Your task to perform on an android device: change notification settings in the gmail app Image 0: 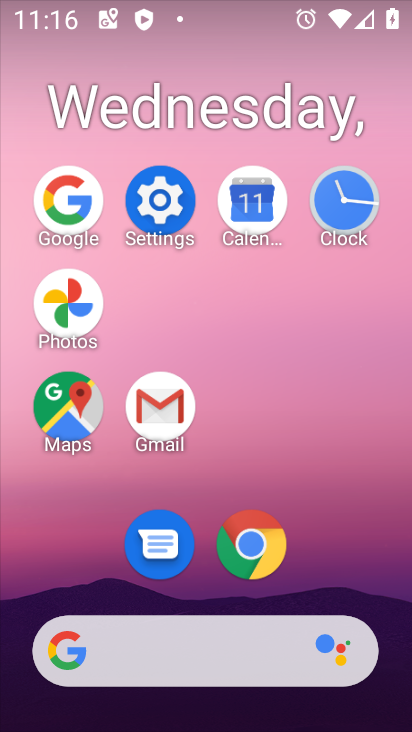
Step 0: click (163, 406)
Your task to perform on an android device: change notification settings in the gmail app Image 1: 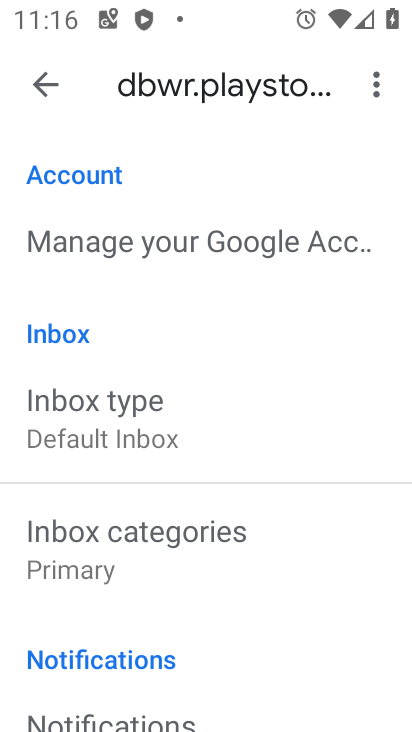
Step 1: drag from (250, 614) to (277, 229)
Your task to perform on an android device: change notification settings in the gmail app Image 2: 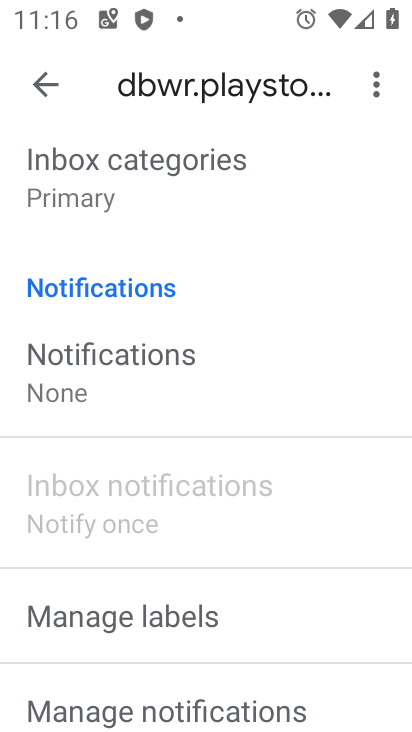
Step 2: click (151, 363)
Your task to perform on an android device: change notification settings in the gmail app Image 3: 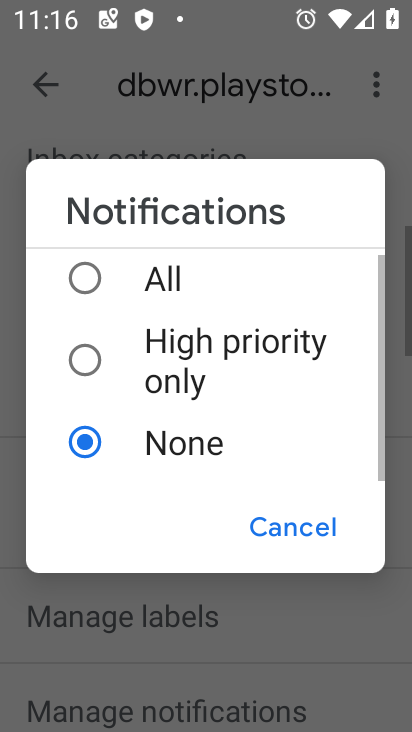
Step 3: click (192, 266)
Your task to perform on an android device: change notification settings in the gmail app Image 4: 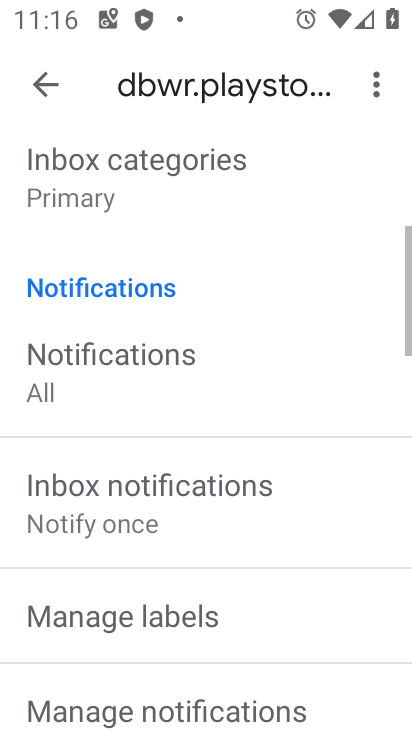
Step 4: task complete